Your task to perform on an android device: Search for vintage wall art on Etsy. Image 0: 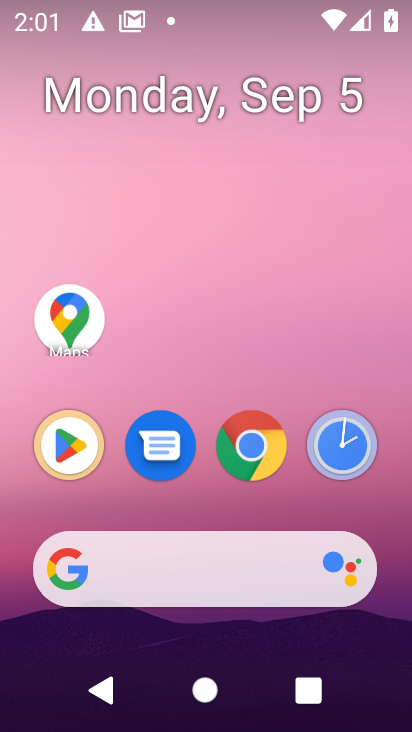
Step 0: press home button
Your task to perform on an android device: Search for vintage wall art on Etsy. Image 1: 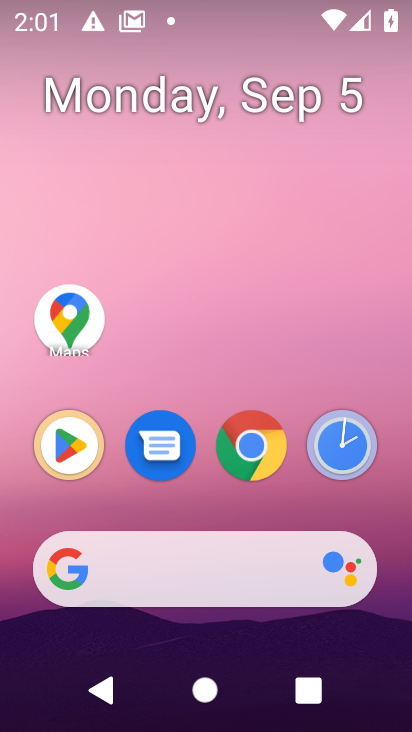
Step 1: drag from (229, 131) to (169, 549)
Your task to perform on an android device: Search for vintage wall art on Etsy. Image 2: 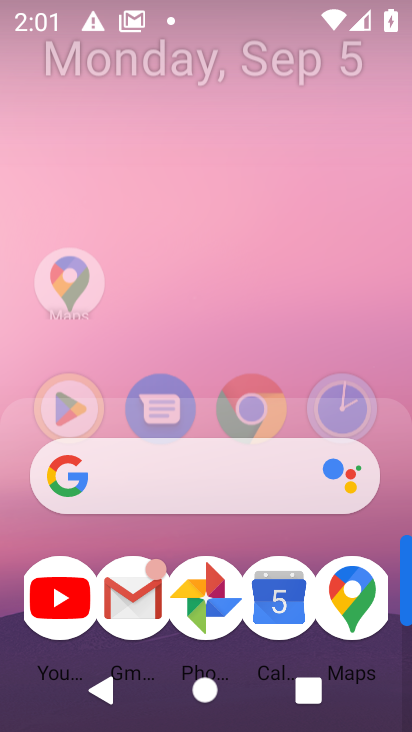
Step 2: drag from (249, 535) to (213, 468)
Your task to perform on an android device: Search for vintage wall art on Etsy. Image 3: 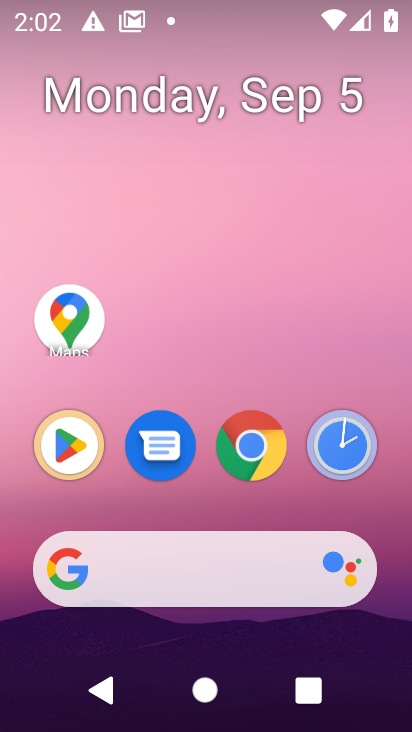
Step 3: drag from (231, 7) to (16, 5)
Your task to perform on an android device: Search for vintage wall art on Etsy. Image 4: 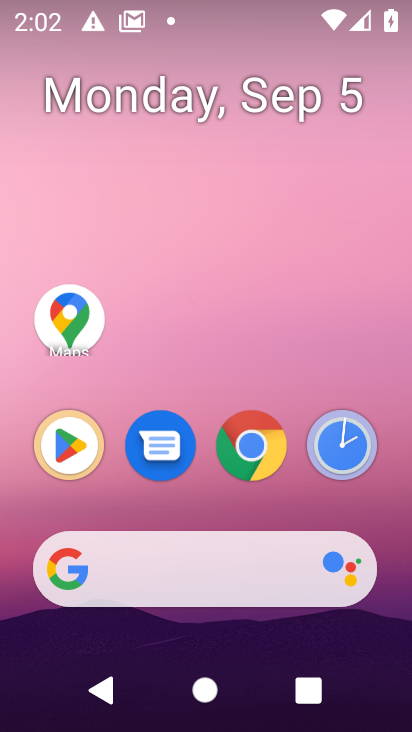
Step 4: drag from (214, 355) to (205, 1)
Your task to perform on an android device: Search for vintage wall art on Etsy. Image 5: 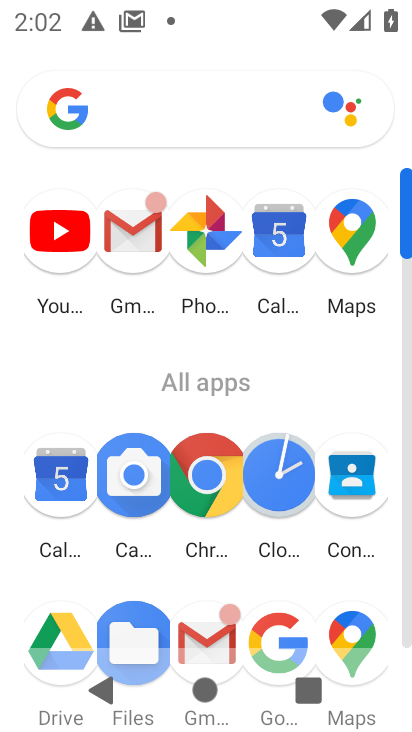
Step 5: click (197, 476)
Your task to perform on an android device: Search for vintage wall art on Etsy. Image 6: 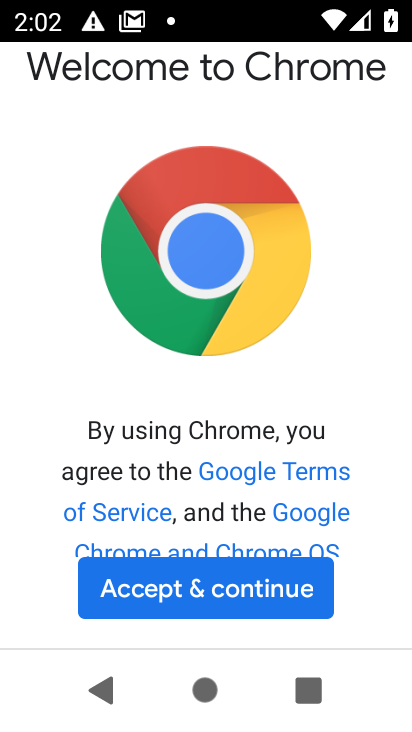
Step 6: click (193, 585)
Your task to perform on an android device: Search for vintage wall art on Etsy. Image 7: 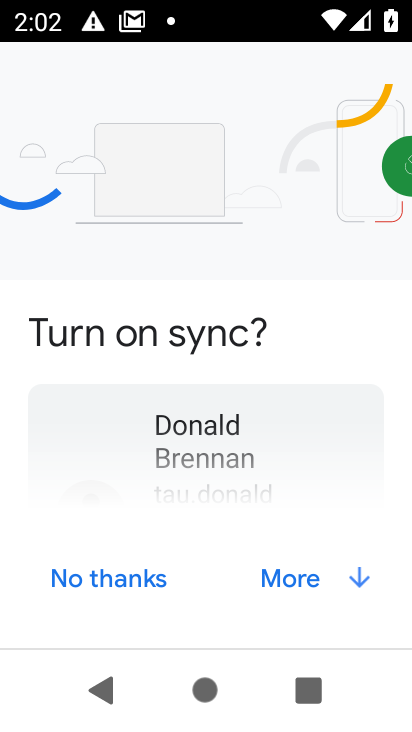
Step 7: click (306, 576)
Your task to perform on an android device: Search for vintage wall art on Etsy. Image 8: 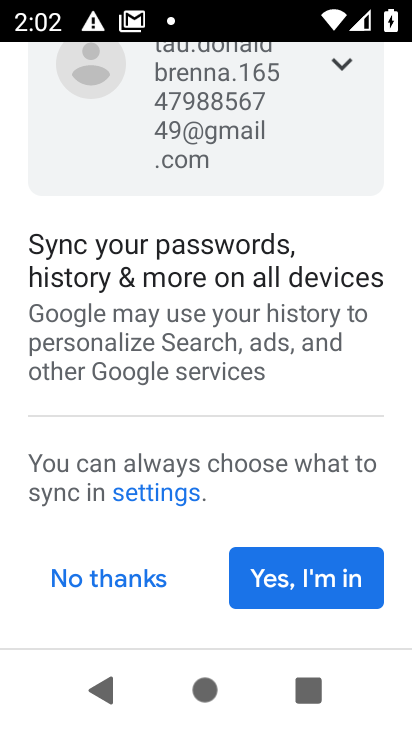
Step 8: click (303, 573)
Your task to perform on an android device: Search for vintage wall art on Etsy. Image 9: 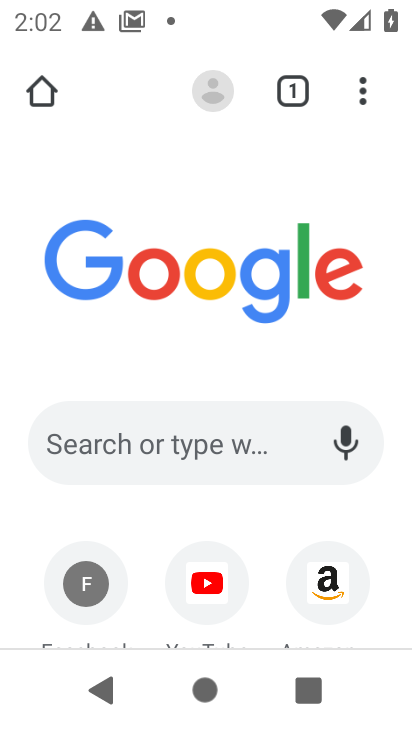
Step 9: click (183, 435)
Your task to perform on an android device: Search for vintage wall art on Etsy. Image 10: 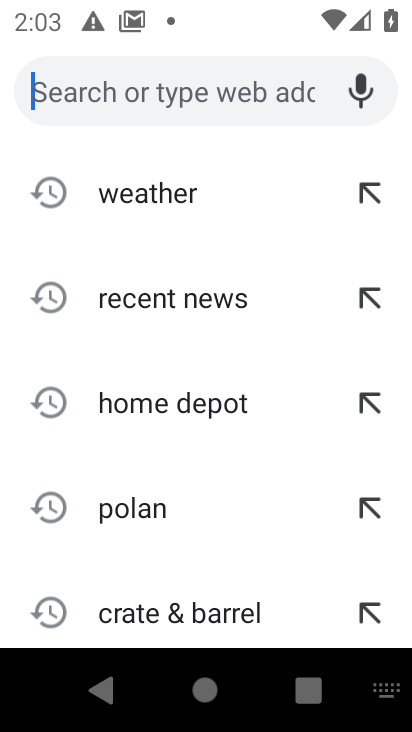
Step 10: type "vintage wall art on Etsy"
Your task to perform on an android device: Search for vintage wall art on Etsy. Image 11: 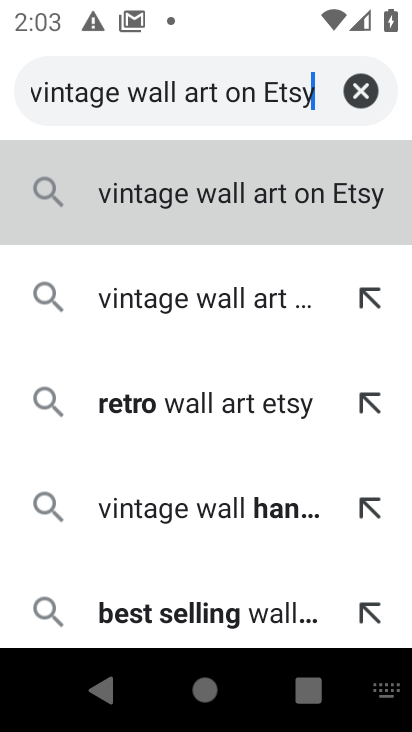
Step 11: click (198, 217)
Your task to perform on an android device: Search for vintage wall art on Etsy. Image 12: 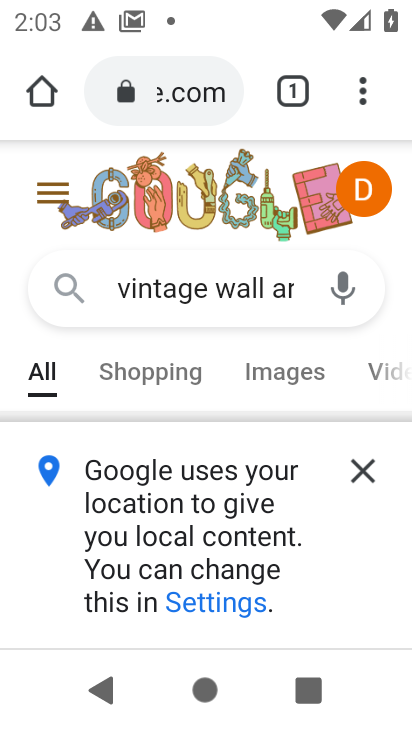
Step 12: click (366, 476)
Your task to perform on an android device: Search for vintage wall art on Etsy. Image 13: 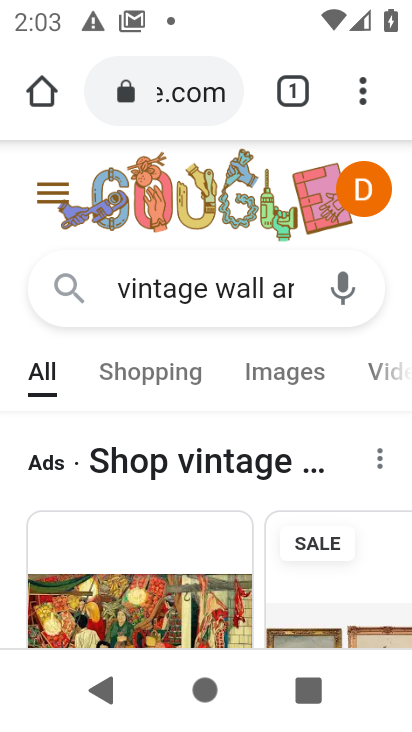
Step 13: drag from (260, 510) to (232, 194)
Your task to perform on an android device: Search for vintage wall art on Etsy. Image 14: 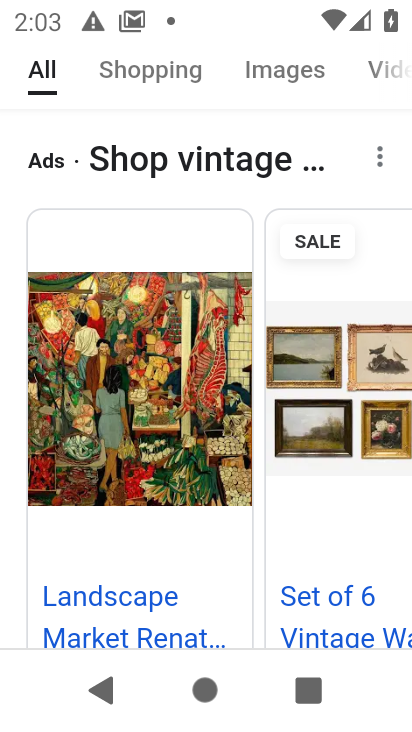
Step 14: drag from (260, 537) to (308, 133)
Your task to perform on an android device: Search for vintage wall art on Etsy. Image 15: 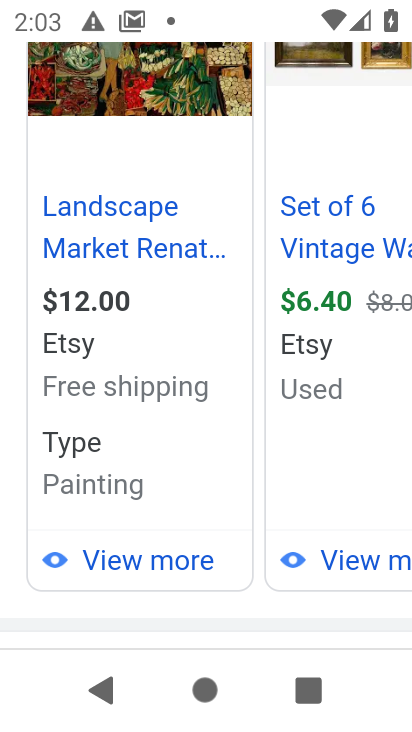
Step 15: drag from (263, 607) to (283, 255)
Your task to perform on an android device: Search for vintage wall art on Etsy. Image 16: 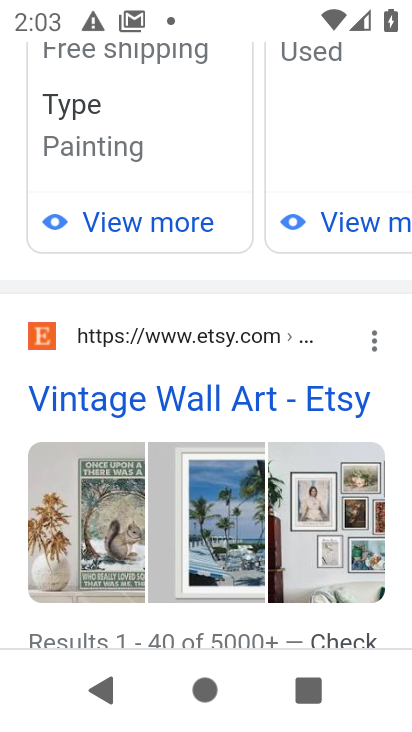
Step 16: click (188, 398)
Your task to perform on an android device: Search for vintage wall art on Etsy. Image 17: 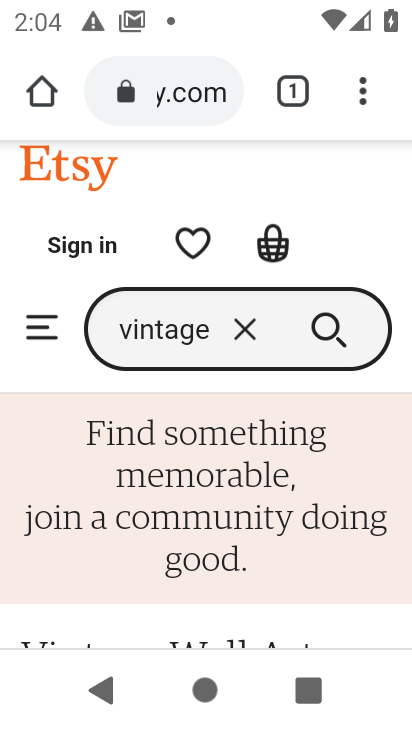
Step 17: drag from (250, 607) to (246, 268)
Your task to perform on an android device: Search for vintage wall art on Etsy. Image 18: 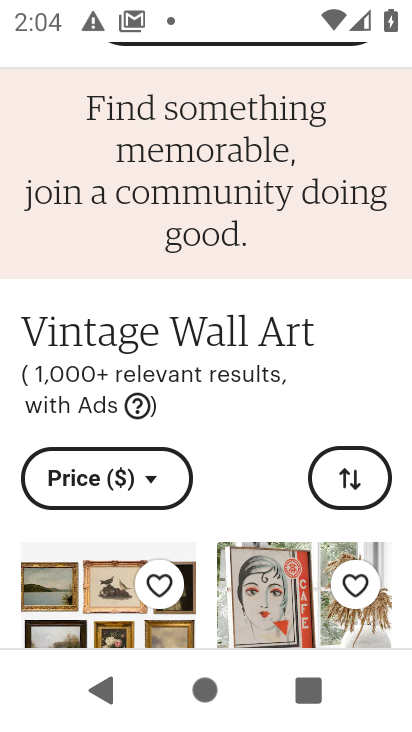
Step 18: drag from (228, 515) to (270, 202)
Your task to perform on an android device: Search for vintage wall art on Etsy. Image 19: 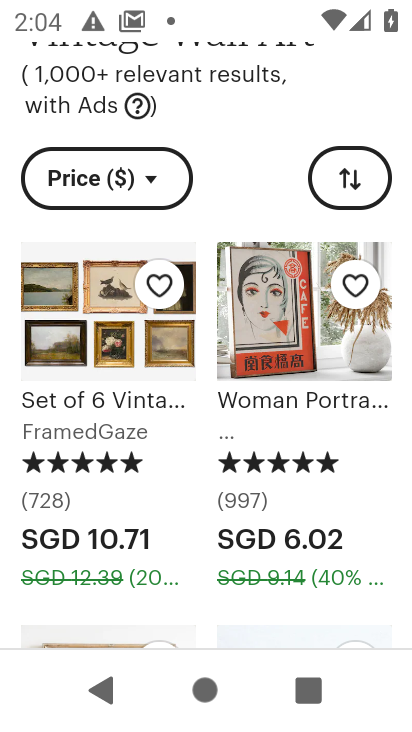
Step 19: drag from (193, 566) to (248, 258)
Your task to perform on an android device: Search for vintage wall art on Etsy. Image 20: 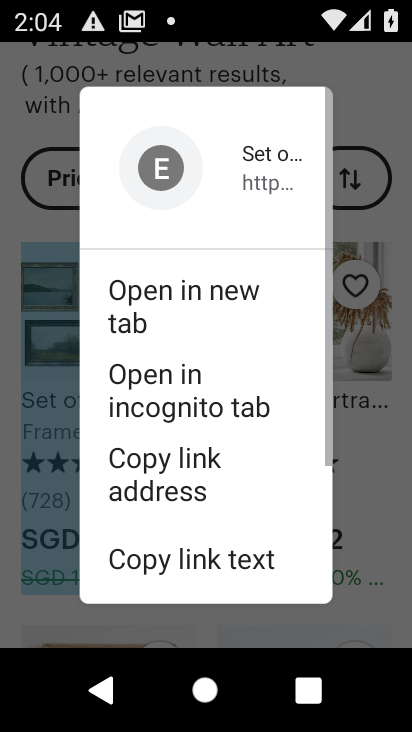
Step 20: click (378, 344)
Your task to perform on an android device: Search for vintage wall art on Etsy. Image 21: 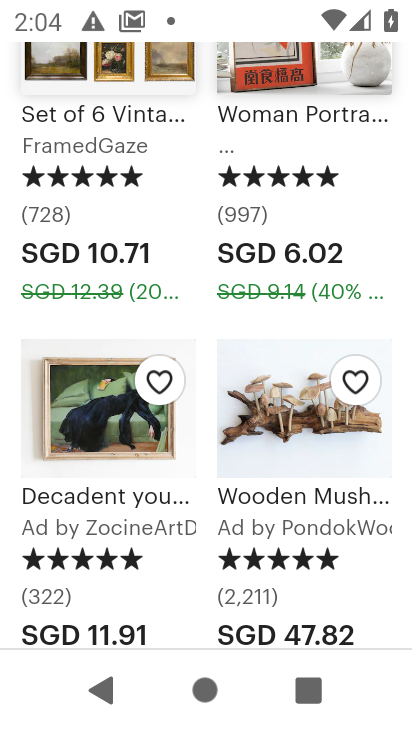
Step 21: drag from (197, 622) to (224, 156)
Your task to perform on an android device: Search for vintage wall art on Etsy. Image 22: 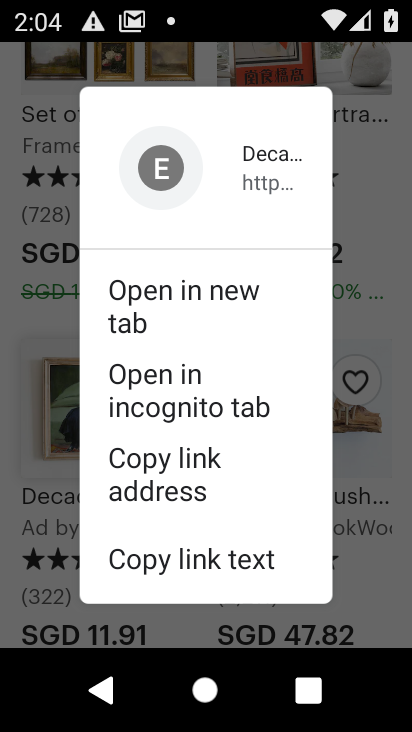
Step 22: click (376, 432)
Your task to perform on an android device: Search for vintage wall art on Etsy. Image 23: 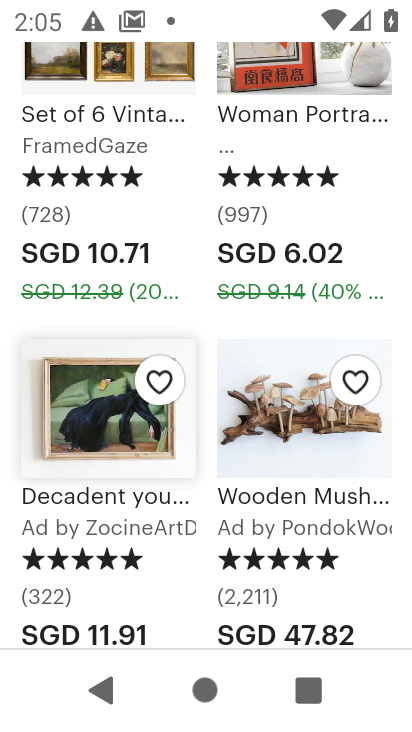
Step 23: drag from (203, 626) to (197, 172)
Your task to perform on an android device: Search for vintage wall art on Etsy. Image 24: 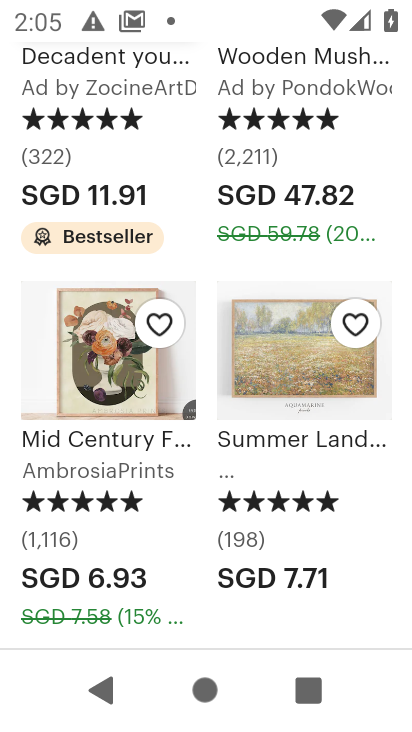
Step 24: drag from (215, 484) to (222, 285)
Your task to perform on an android device: Search for vintage wall art on Etsy. Image 25: 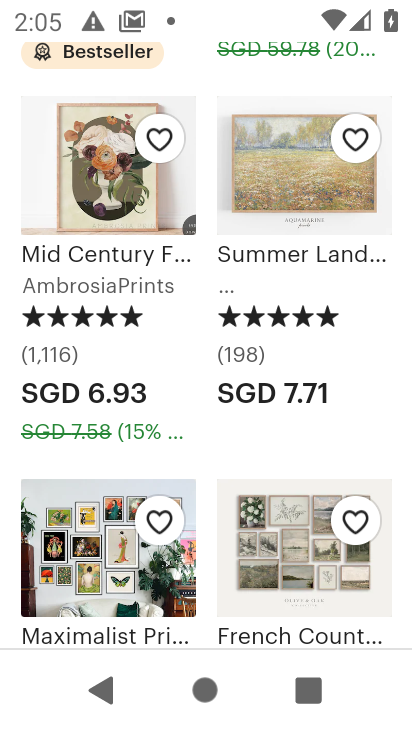
Step 25: drag from (200, 615) to (194, 421)
Your task to perform on an android device: Search for vintage wall art on Etsy. Image 26: 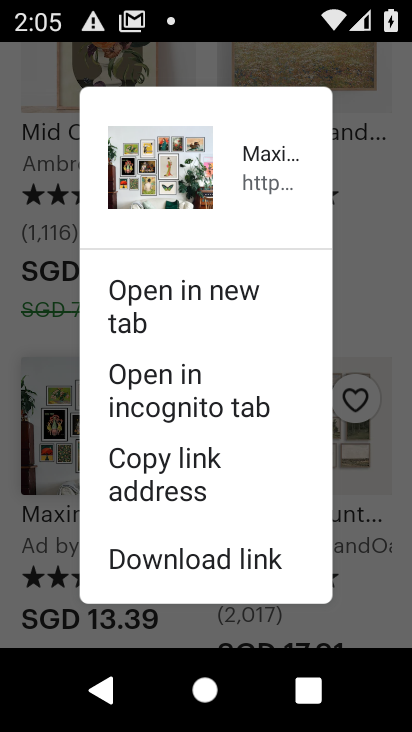
Step 26: click (371, 528)
Your task to perform on an android device: Search for vintage wall art on Etsy. Image 27: 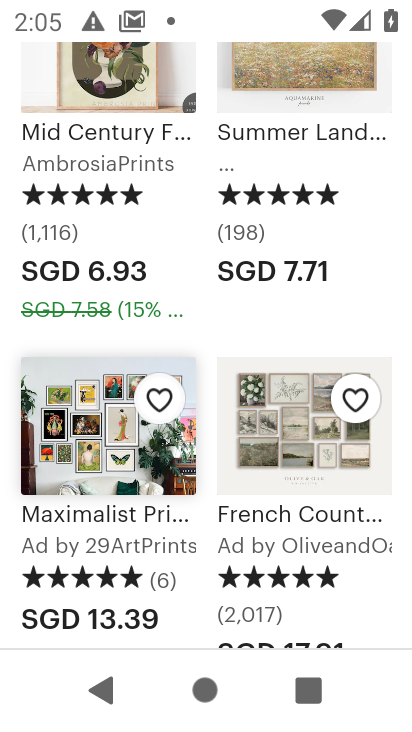
Step 27: task complete